Your task to perform on an android device: Open battery settings Image 0: 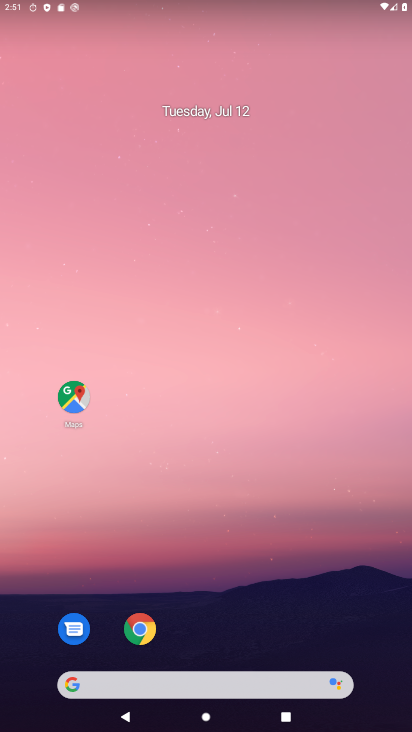
Step 0: drag from (222, 620) to (233, 45)
Your task to perform on an android device: Open battery settings Image 1: 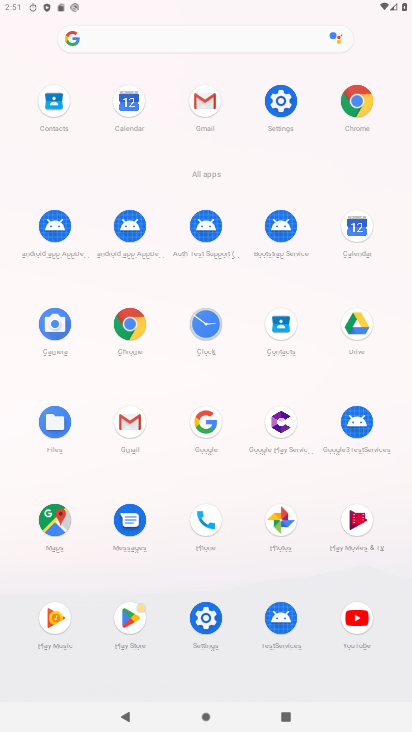
Step 1: click (281, 107)
Your task to perform on an android device: Open battery settings Image 2: 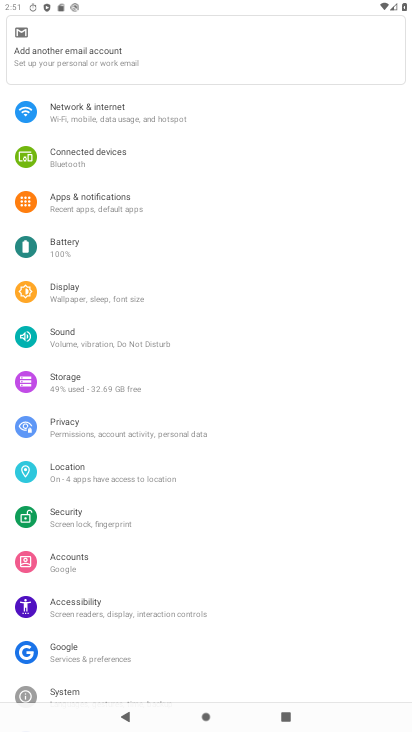
Step 2: click (51, 237)
Your task to perform on an android device: Open battery settings Image 3: 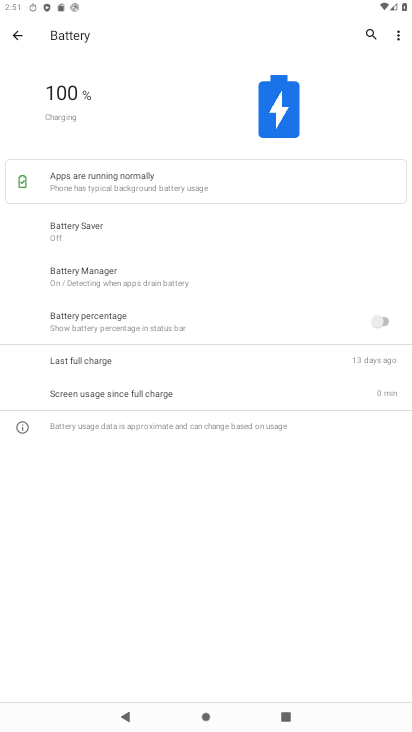
Step 3: task complete